Your task to perform on an android device: Go to ESPN.com Image 0: 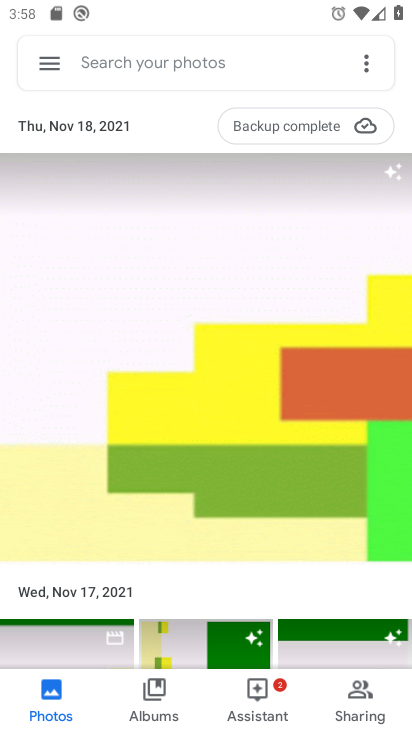
Step 0: press home button
Your task to perform on an android device: Go to ESPN.com Image 1: 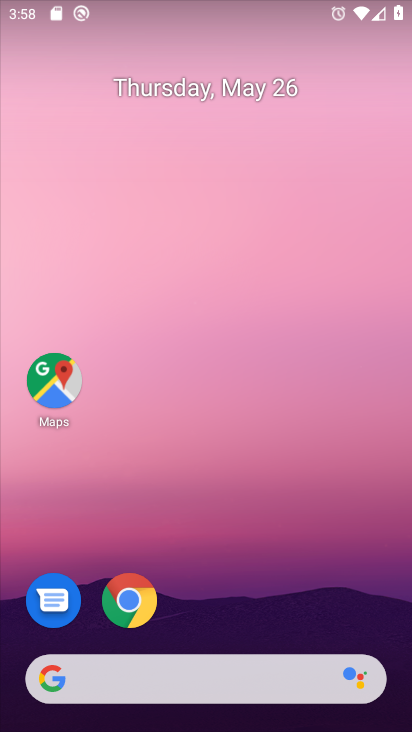
Step 1: click (136, 595)
Your task to perform on an android device: Go to ESPN.com Image 2: 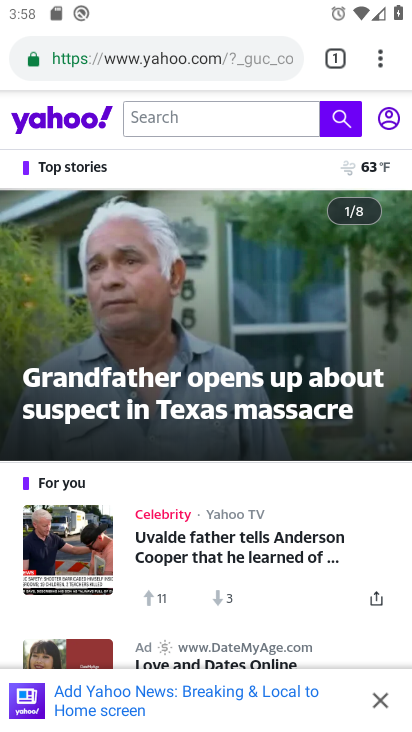
Step 2: click (191, 53)
Your task to perform on an android device: Go to ESPN.com Image 3: 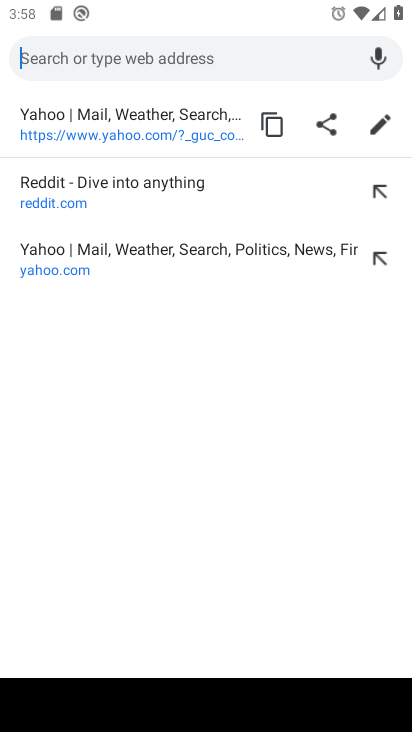
Step 3: click (195, 51)
Your task to perform on an android device: Go to ESPN.com Image 4: 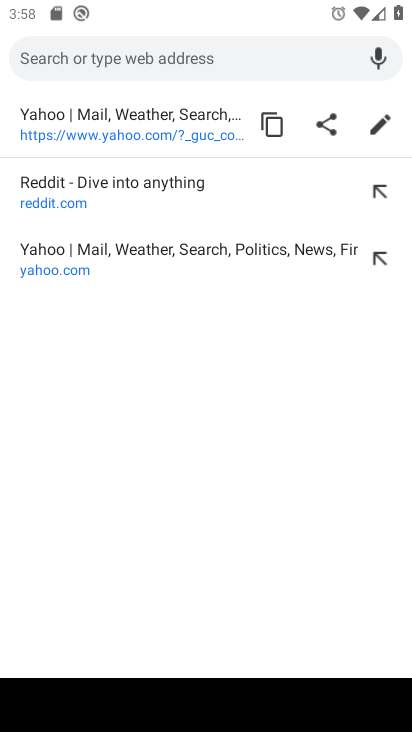
Step 4: type "ESPN.com"
Your task to perform on an android device: Go to ESPN.com Image 5: 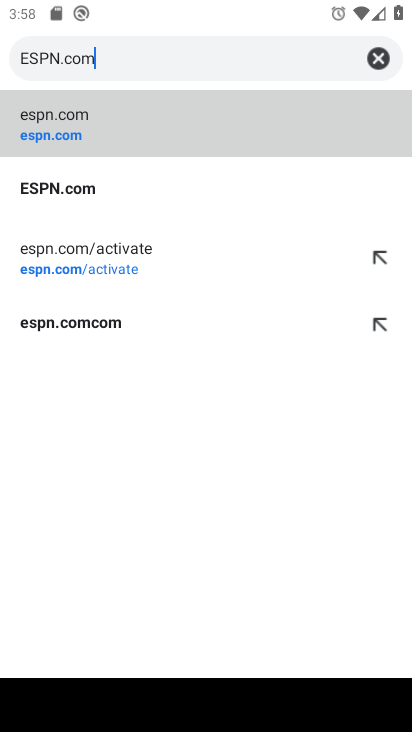
Step 5: click (77, 193)
Your task to perform on an android device: Go to ESPN.com Image 6: 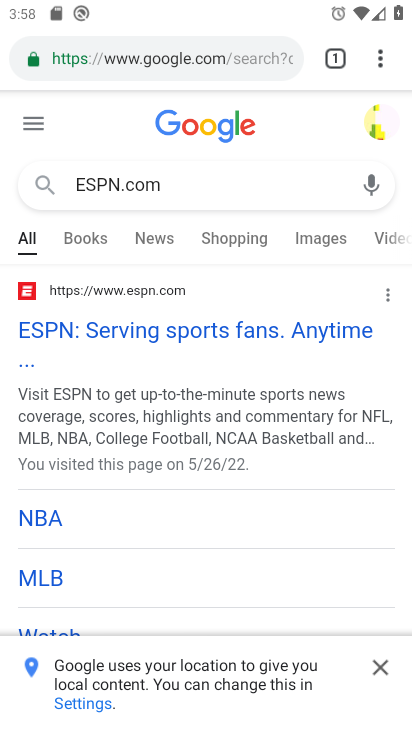
Step 6: task complete